Your task to perform on an android device: Show me productivity apps on the Play Store Image 0: 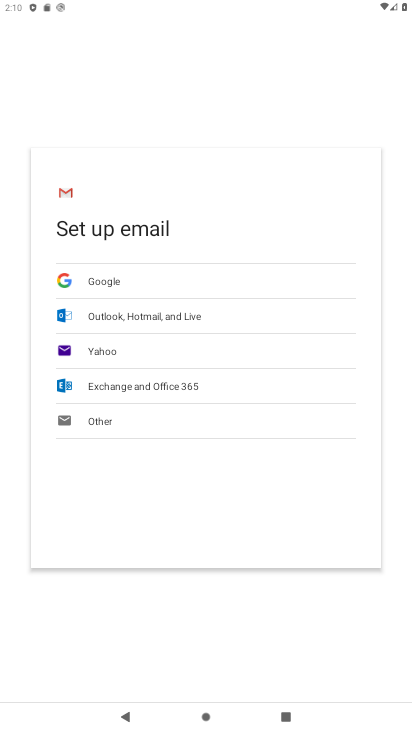
Step 0: press home button
Your task to perform on an android device: Show me productivity apps on the Play Store Image 1: 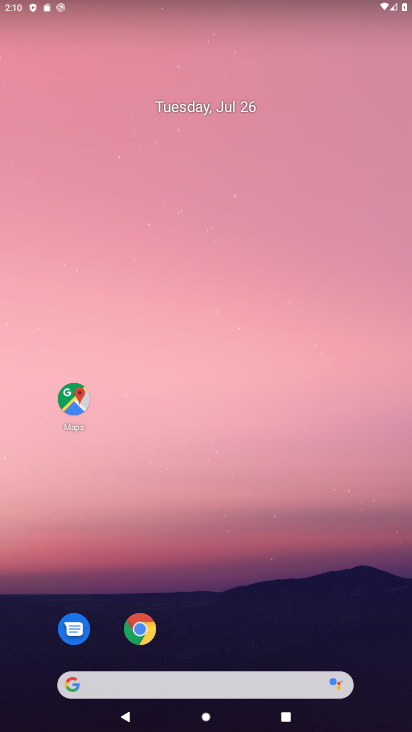
Step 1: drag from (251, 618) to (251, 179)
Your task to perform on an android device: Show me productivity apps on the Play Store Image 2: 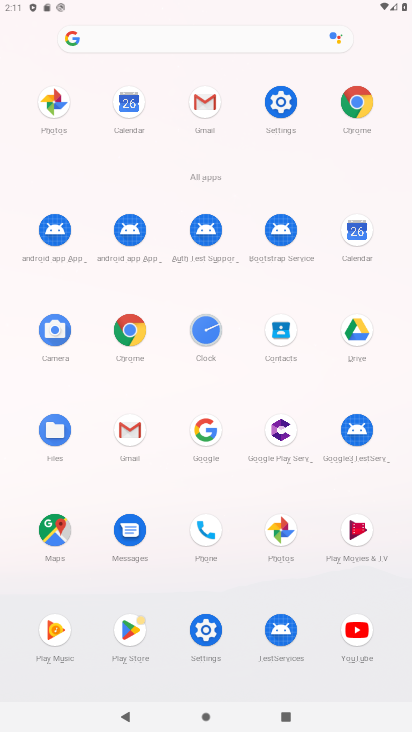
Step 2: click (129, 627)
Your task to perform on an android device: Show me productivity apps on the Play Store Image 3: 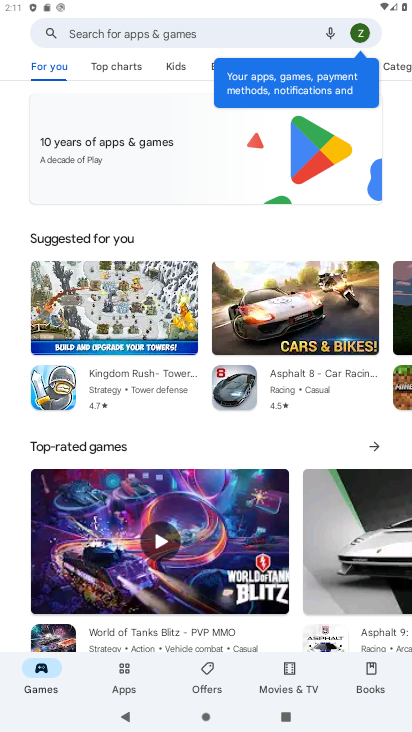
Step 3: click (125, 675)
Your task to perform on an android device: Show me productivity apps on the Play Store Image 4: 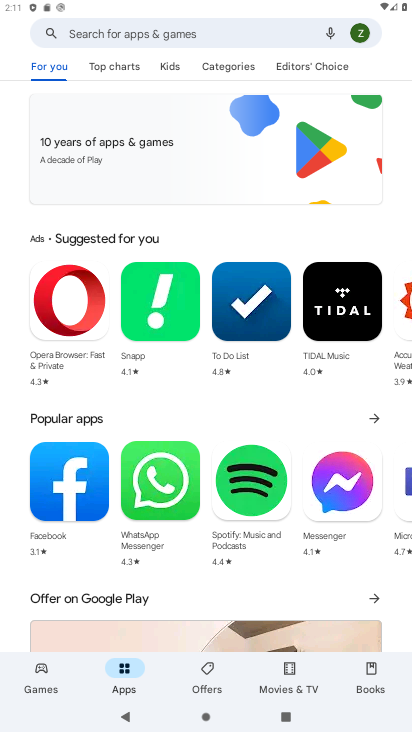
Step 4: click (237, 65)
Your task to perform on an android device: Show me productivity apps on the Play Store Image 5: 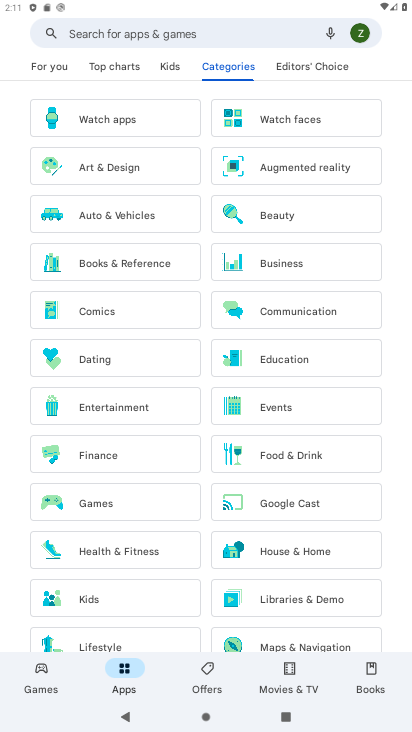
Step 5: drag from (208, 548) to (190, 167)
Your task to perform on an android device: Show me productivity apps on the Play Store Image 6: 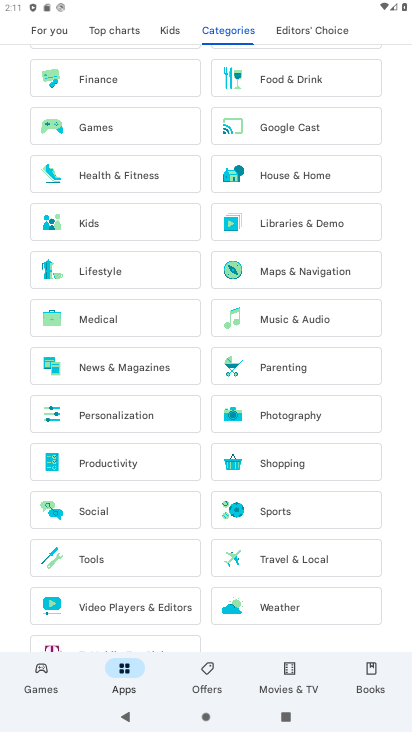
Step 6: drag from (167, 586) to (113, 125)
Your task to perform on an android device: Show me productivity apps on the Play Store Image 7: 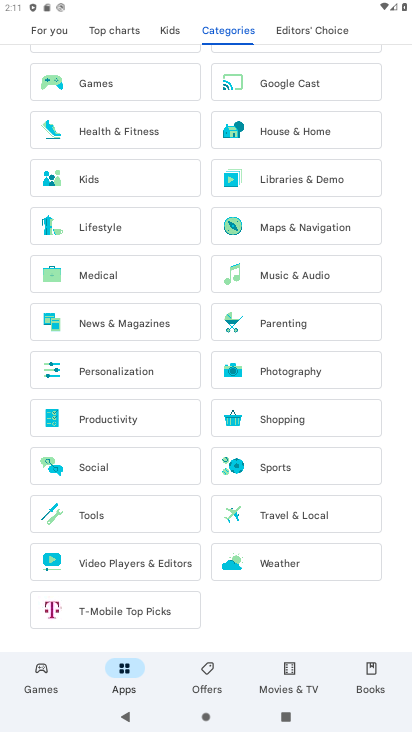
Step 7: click (105, 420)
Your task to perform on an android device: Show me productivity apps on the Play Store Image 8: 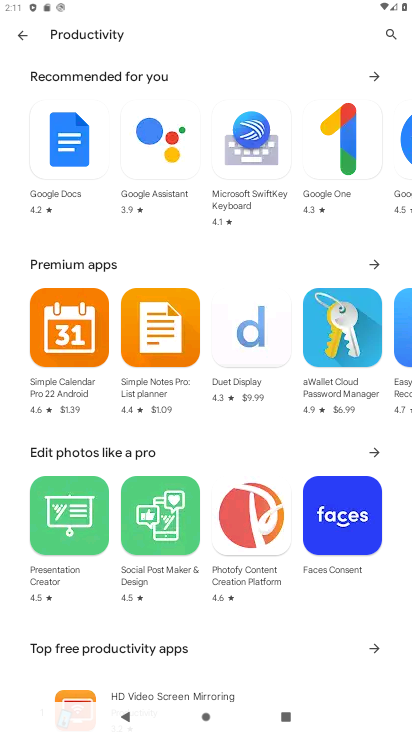
Step 8: task complete